Your task to perform on an android device: Show me popular games on the Play Store Image 0: 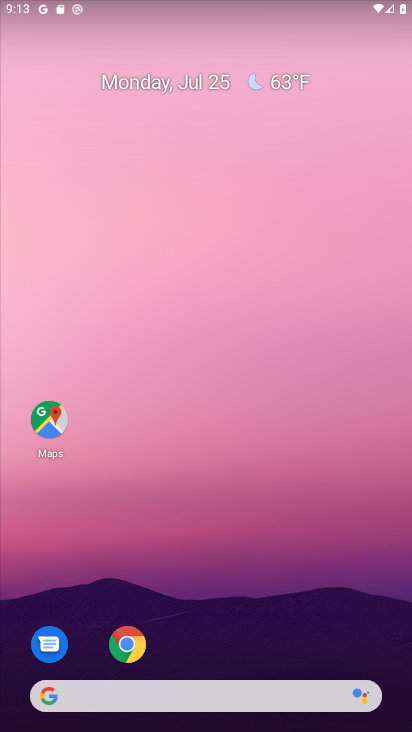
Step 0: drag from (266, 531) to (220, 150)
Your task to perform on an android device: Show me popular games on the Play Store Image 1: 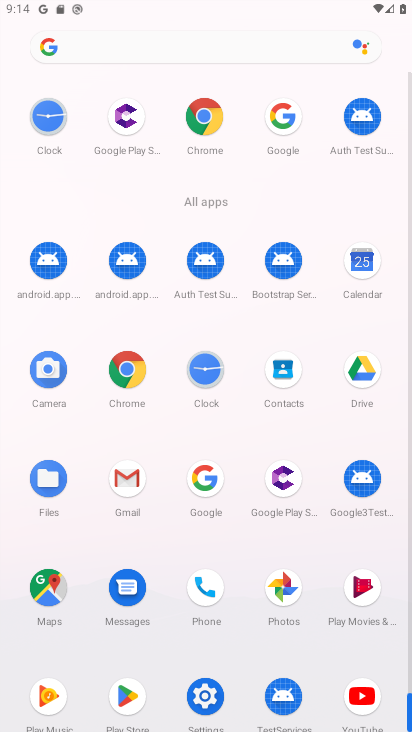
Step 1: click (125, 593)
Your task to perform on an android device: Show me popular games on the Play Store Image 2: 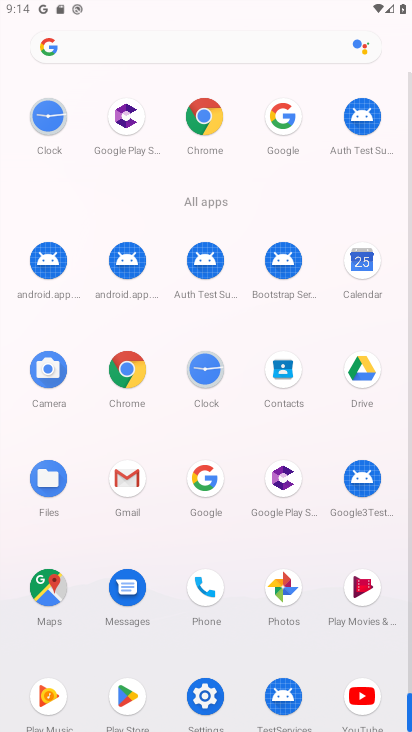
Step 2: click (123, 698)
Your task to perform on an android device: Show me popular games on the Play Store Image 3: 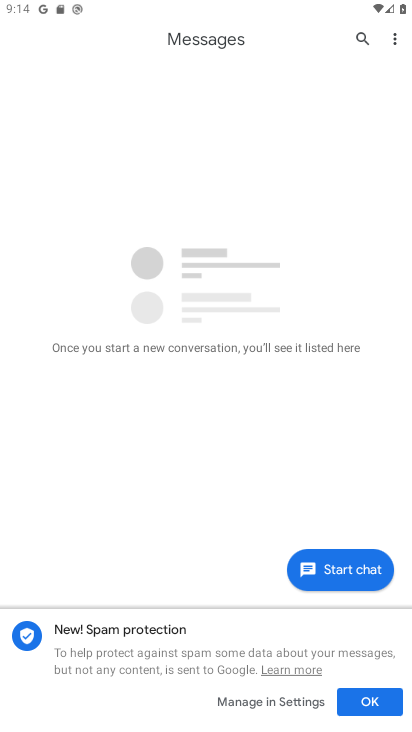
Step 3: click (372, 710)
Your task to perform on an android device: Show me popular games on the Play Store Image 4: 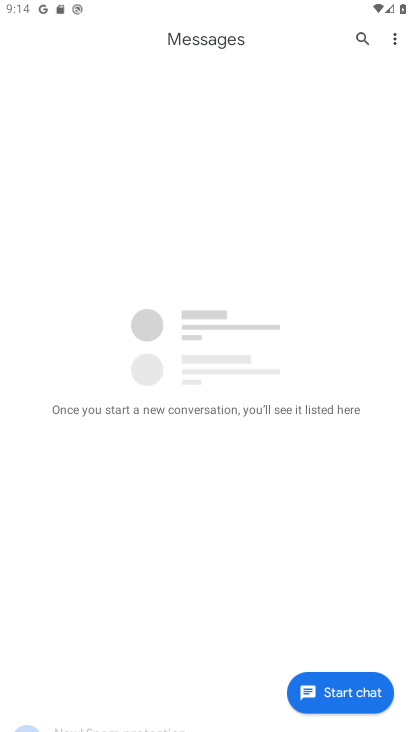
Step 4: click (374, 709)
Your task to perform on an android device: Show me popular games on the Play Store Image 5: 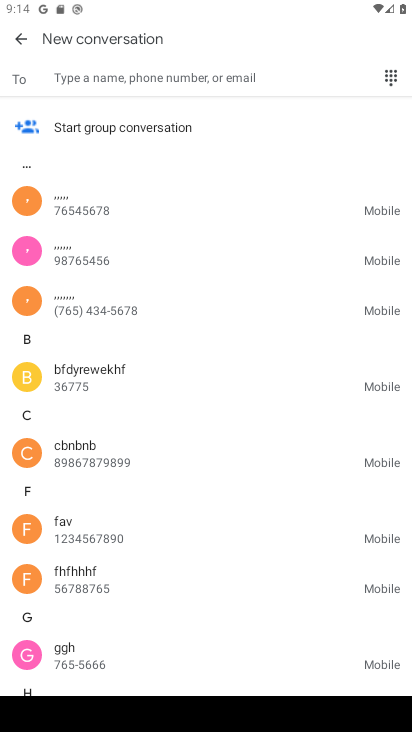
Step 5: click (10, 34)
Your task to perform on an android device: Show me popular games on the Play Store Image 6: 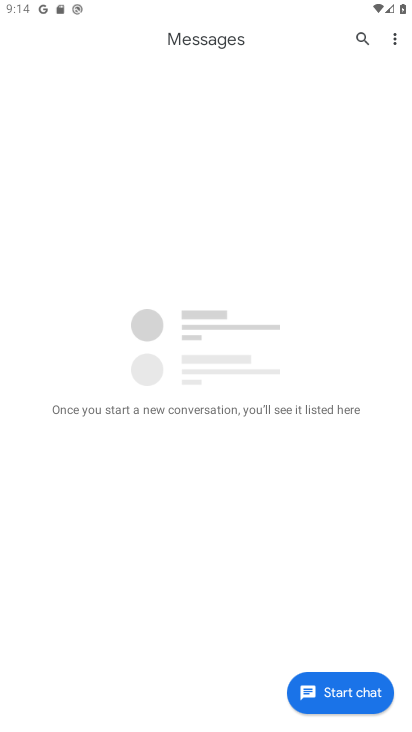
Step 6: press back button
Your task to perform on an android device: Show me popular games on the Play Store Image 7: 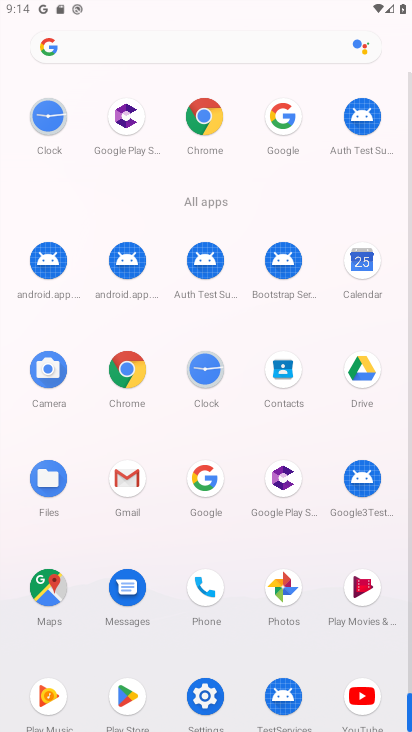
Step 7: click (128, 684)
Your task to perform on an android device: Show me popular games on the Play Store Image 8: 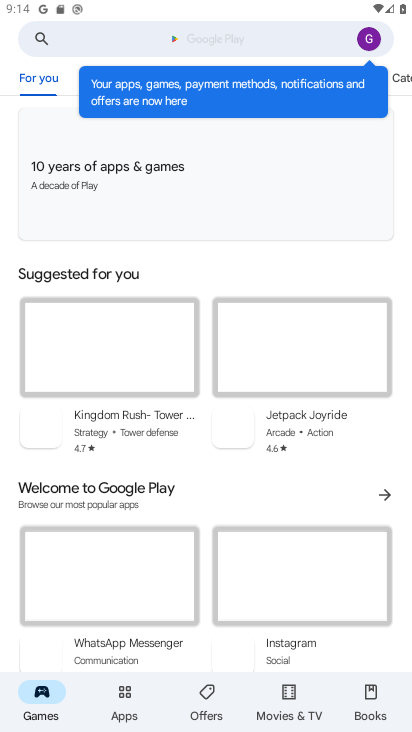
Step 8: click (166, 43)
Your task to perform on an android device: Show me popular games on the Play Store Image 9: 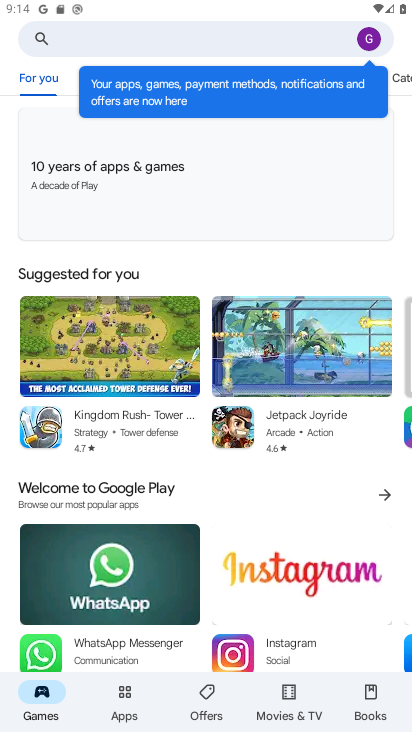
Step 9: click (167, 44)
Your task to perform on an android device: Show me popular games on the Play Store Image 10: 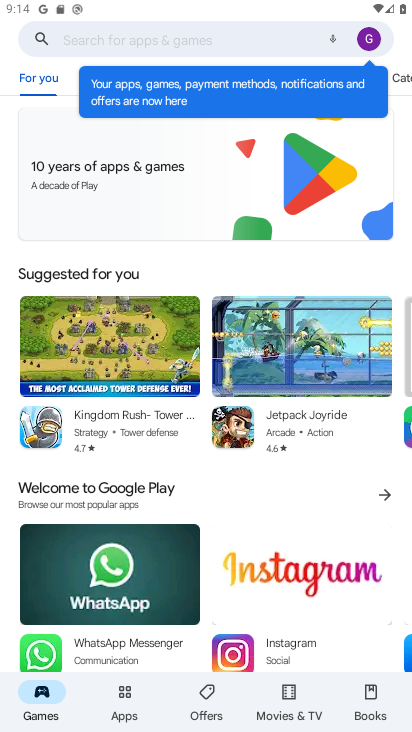
Step 10: click (176, 45)
Your task to perform on an android device: Show me popular games on the Play Store Image 11: 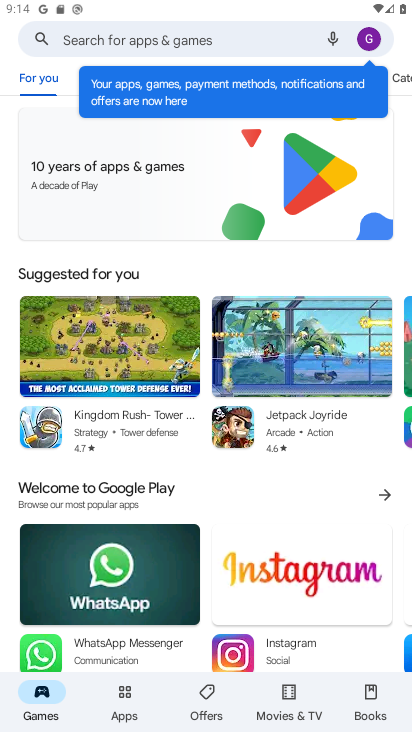
Step 11: click (178, 45)
Your task to perform on an android device: Show me popular games on the Play Store Image 12: 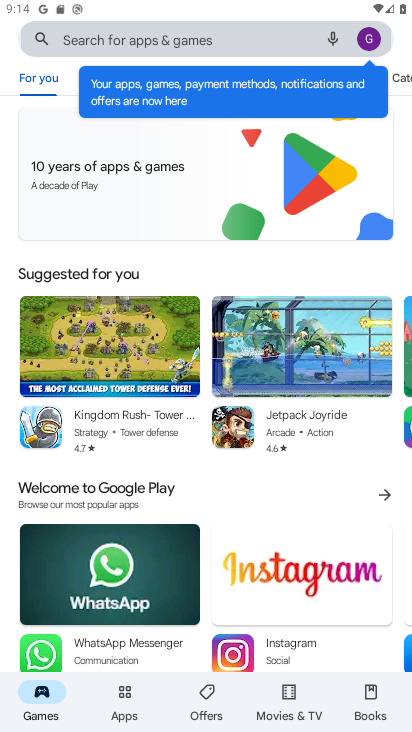
Step 12: click (180, 46)
Your task to perform on an android device: Show me popular games on the Play Store Image 13: 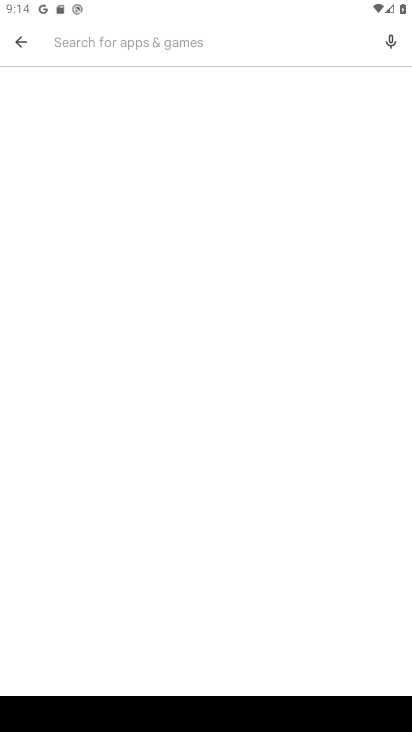
Step 13: type "popular games"
Your task to perform on an android device: Show me popular games on the Play Store Image 14: 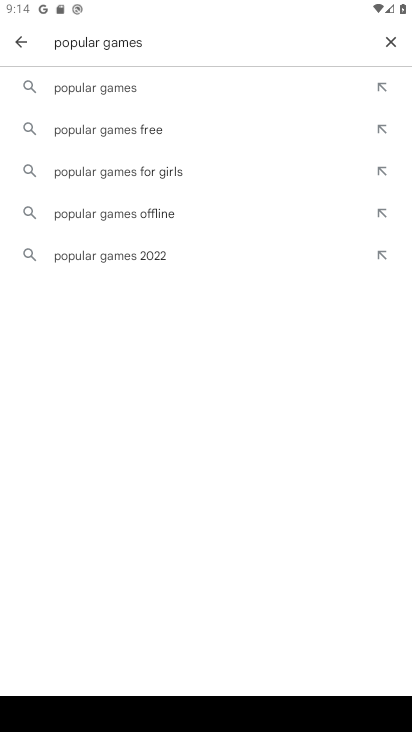
Step 14: click (127, 83)
Your task to perform on an android device: Show me popular games on the Play Store Image 15: 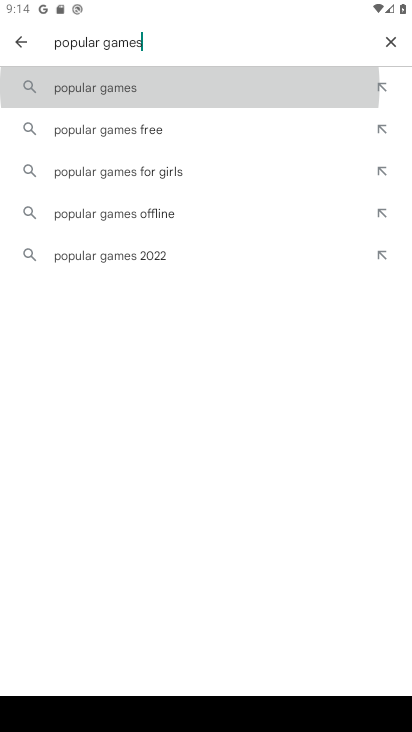
Step 15: click (127, 83)
Your task to perform on an android device: Show me popular games on the Play Store Image 16: 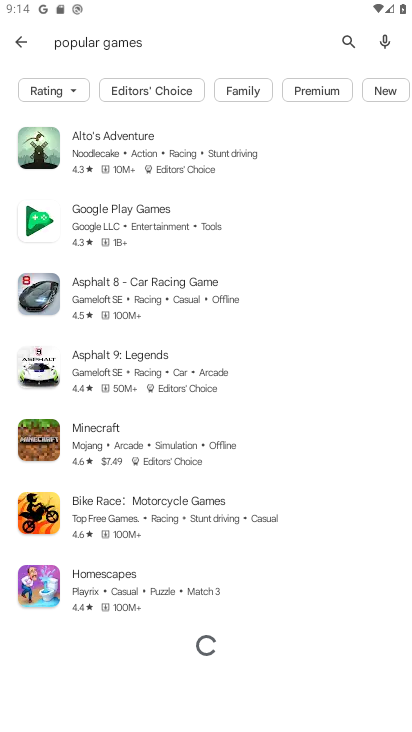
Step 16: task complete